Your task to perform on an android device: toggle notifications settings in the gmail app Image 0: 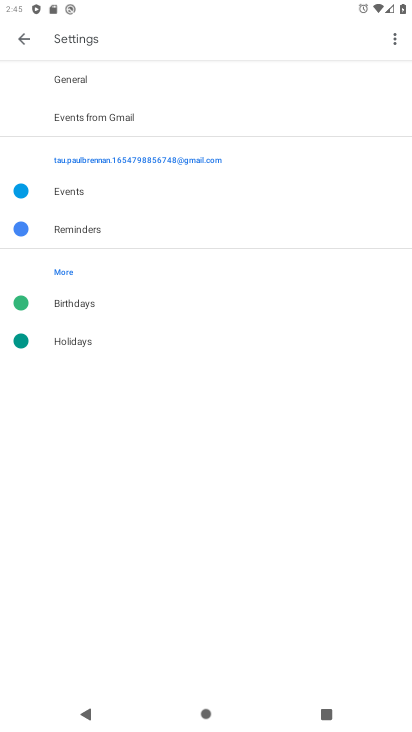
Step 0: press home button
Your task to perform on an android device: toggle notifications settings in the gmail app Image 1: 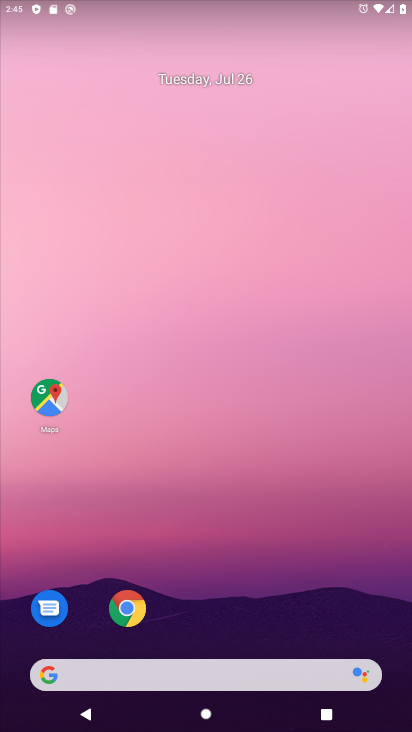
Step 1: drag from (294, 604) to (257, 52)
Your task to perform on an android device: toggle notifications settings in the gmail app Image 2: 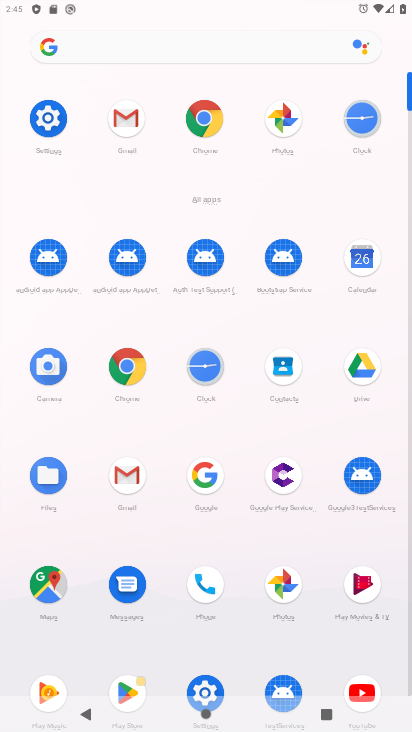
Step 2: click (126, 113)
Your task to perform on an android device: toggle notifications settings in the gmail app Image 3: 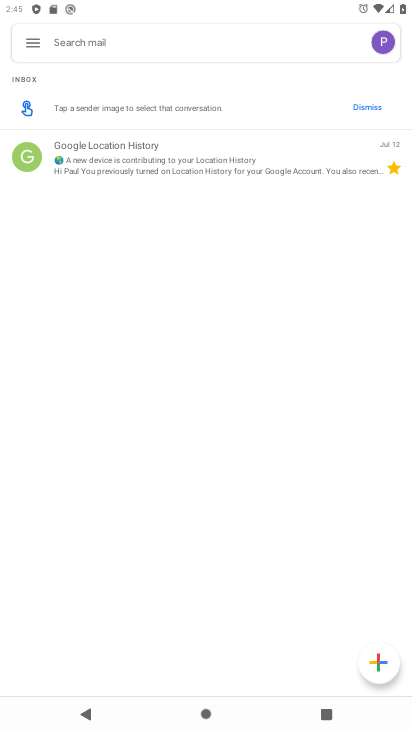
Step 3: click (25, 42)
Your task to perform on an android device: toggle notifications settings in the gmail app Image 4: 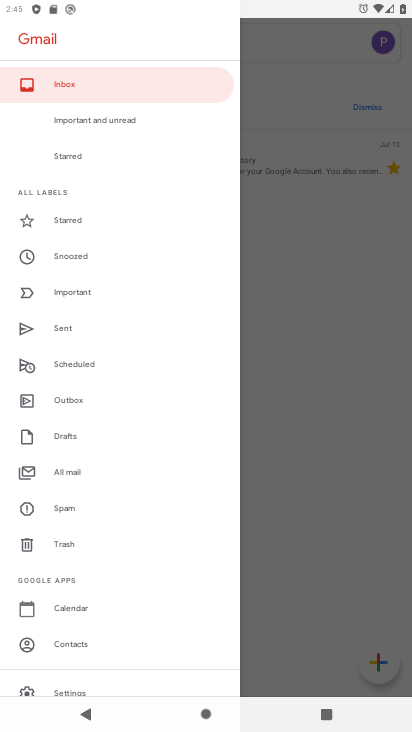
Step 4: click (88, 688)
Your task to perform on an android device: toggle notifications settings in the gmail app Image 5: 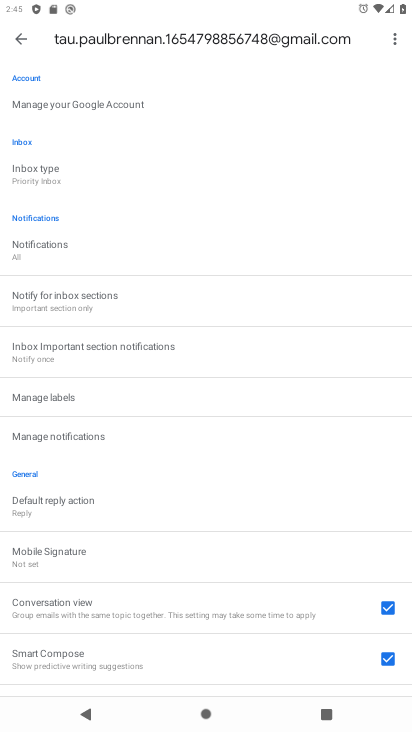
Step 5: click (84, 431)
Your task to perform on an android device: toggle notifications settings in the gmail app Image 6: 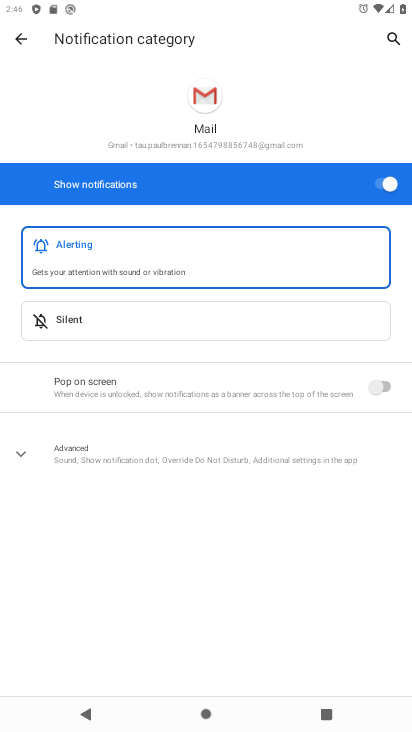
Step 6: click (377, 191)
Your task to perform on an android device: toggle notifications settings in the gmail app Image 7: 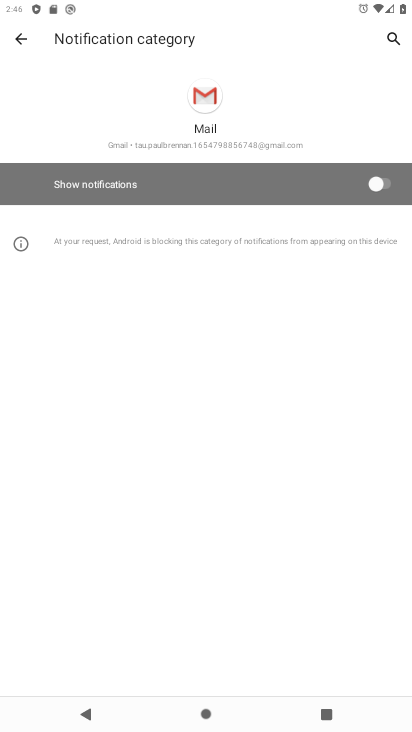
Step 7: task complete